Your task to perform on an android device: Open calendar and show me the fourth week of next month Image 0: 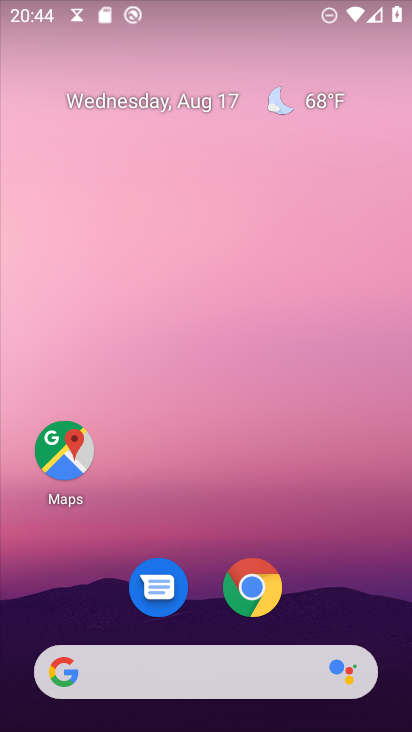
Step 0: drag from (18, 679) to (128, 302)
Your task to perform on an android device: Open calendar and show me the fourth week of next month Image 1: 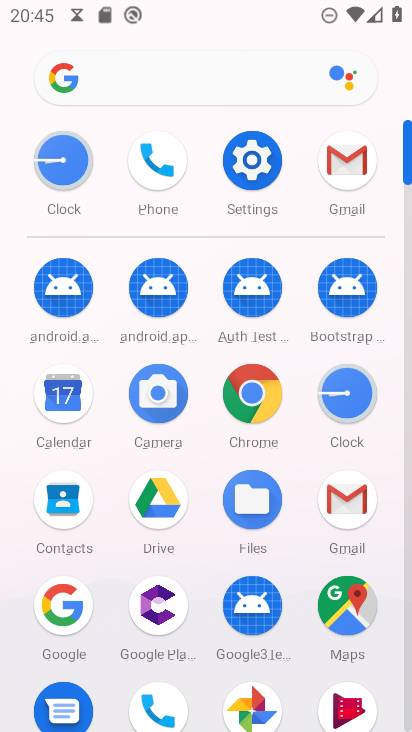
Step 1: click (70, 405)
Your task to perform on an android device: Open calendar and show me the fourth week of next month Image 2: 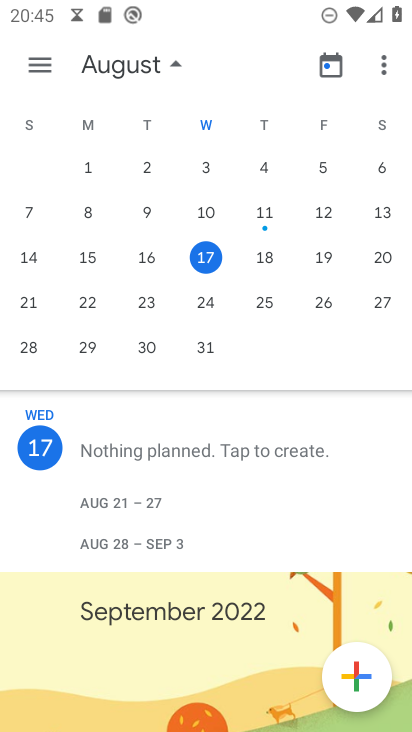
Step 2: drag from (400, 235) to (0, 224)
Your task to perform on an android device: Open calendar and show me the fourth week of next month Image 3: 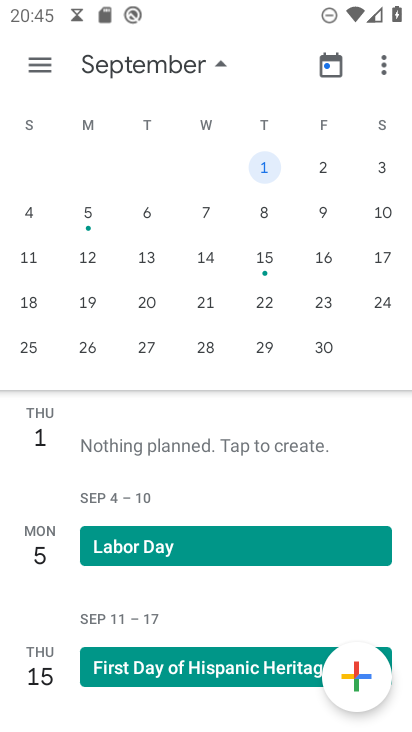
Step 3: click (85, 305)
Your task to perform on an android device: Open calendar and show me the fourth week of next month Image 4: 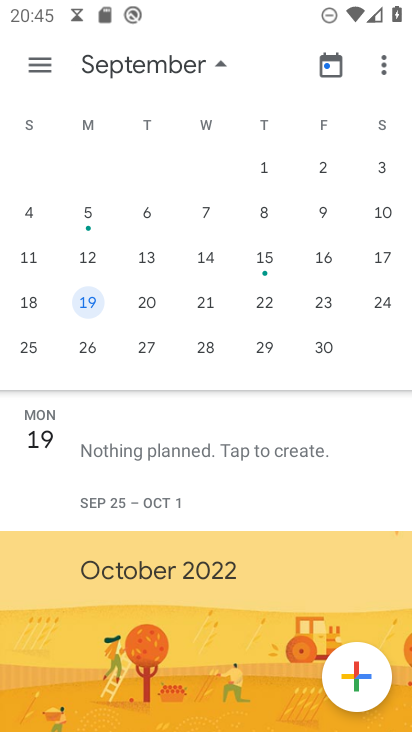
Step 4: task complete